Your task to perform on an android device: Is it going to rain tomorrow? Image 0: 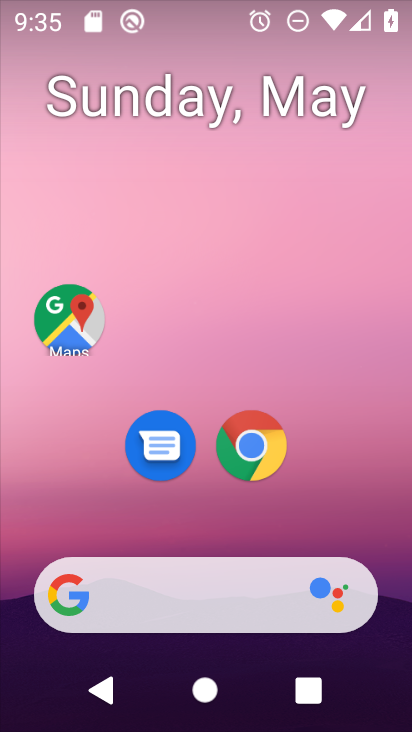
Step 0: drag from (196, 493) to (215, 327)
Your task to perform on an android device: Is it going to rain tomorrow? Image 1: 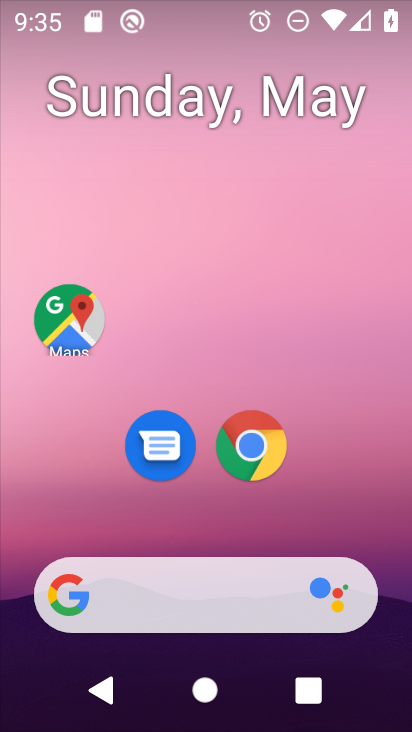
Step 1: drag from (221, 572) to (242, 259)
Your task to perform on an android device: Is it going to rain tomorrow? Image 2: 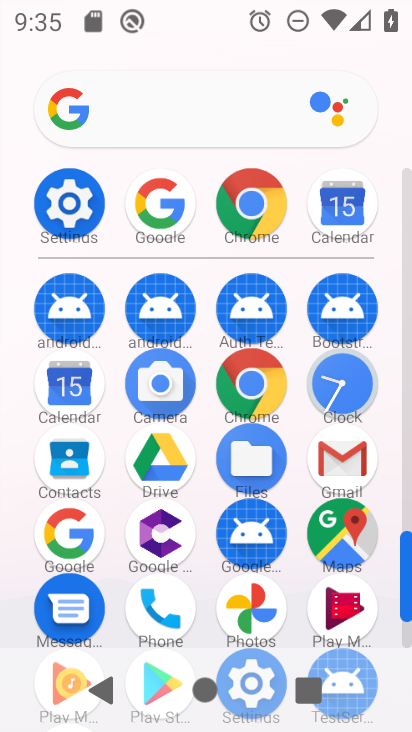
Step 2: drag from (142, 483) to (175, 350)
Your task to perform on an android device: Is it going to rain tomorrow? Image 3: 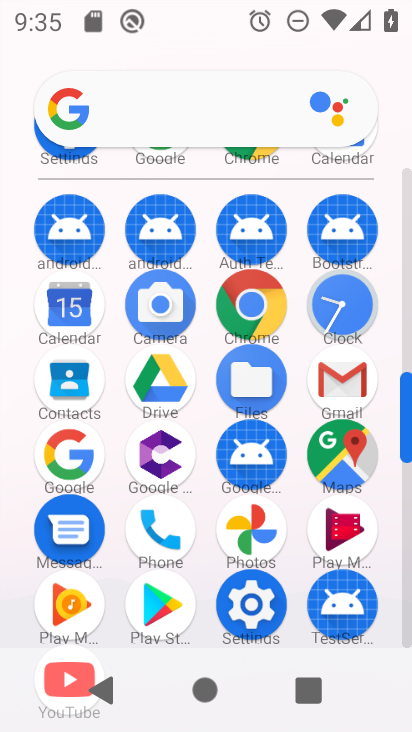
Step 3: click (76, 469)
Your task to perform on an android device: Is it going to rain tomorrow? Image 4: 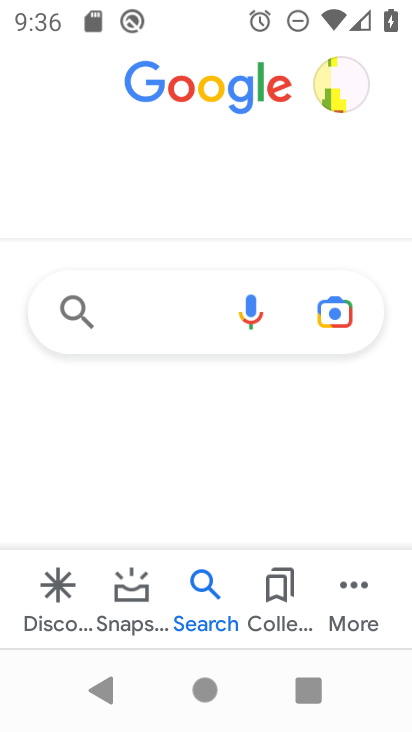
Step 4: click (145, 324)
Your task to perform on an android device: Is it going to rain tomorrow? Image 5: 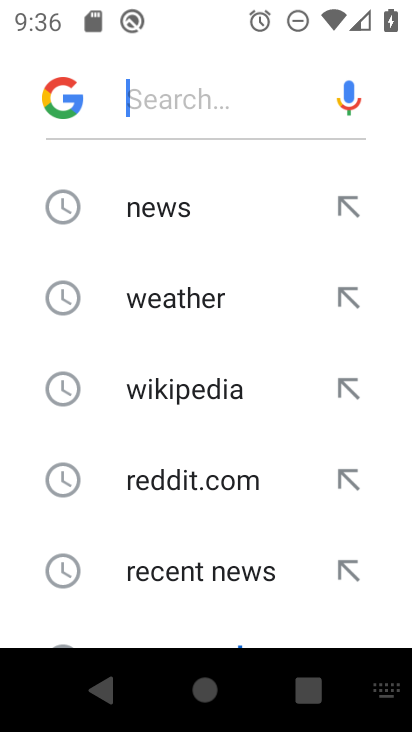
Step 5: click (231, 302)
Your task to perform on an android device: Is it going to rain tomorrow? Image 6: 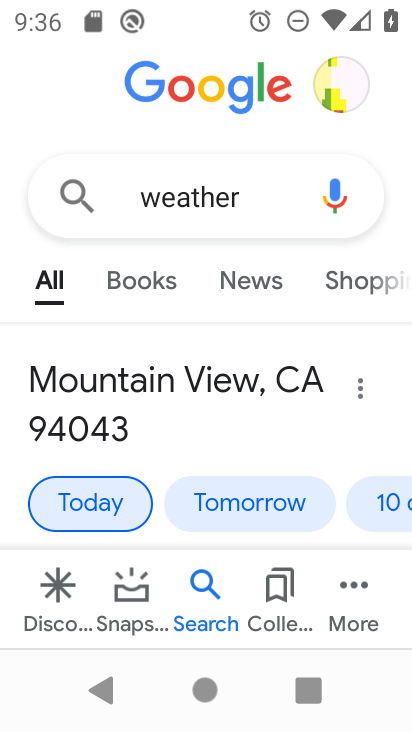
Step 6: drag from (275, 292) to (165, 279)
Your task to perform on an android device: Is it going to rain tomorrow? Image 7: 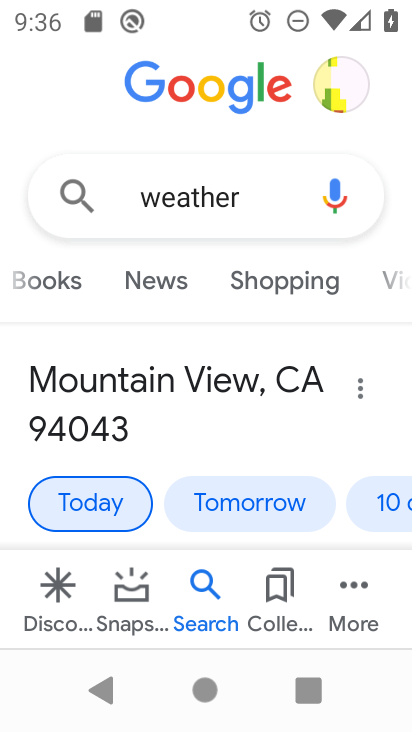
Step 7: drag from (149, 292) to (340, 322)
Your task to perform on an android device: Is it going to rain tomorrow? Image 8: 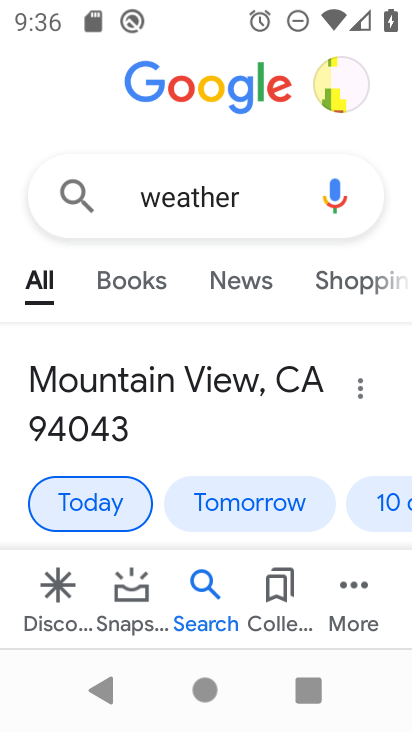
Step 8: click (255, 493)
Your task to perform on an android device: Is it going to rain tomorrow? Image 9: 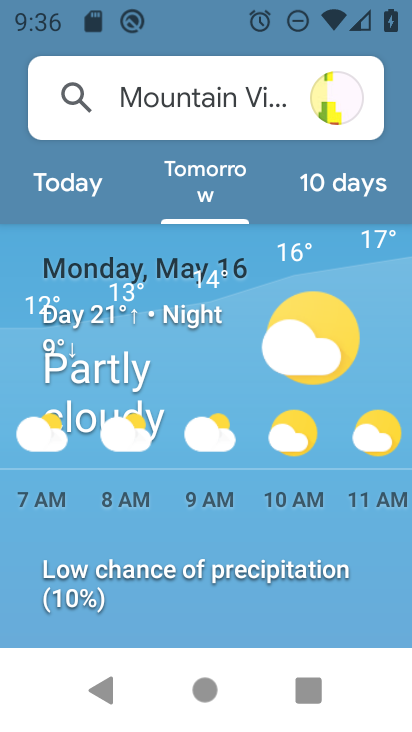
Step 9: task complete